Your task to perform on an android device: Open Yahoo.com Image 0: 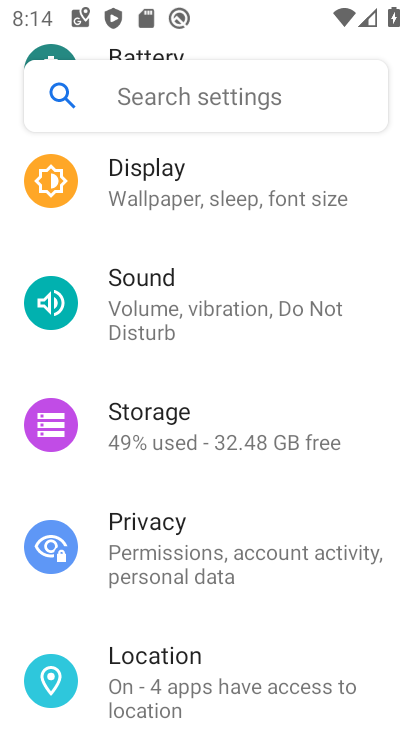
Step 0: press home button
Your task to perform on an android device: Open Yahoo.com Image 1: 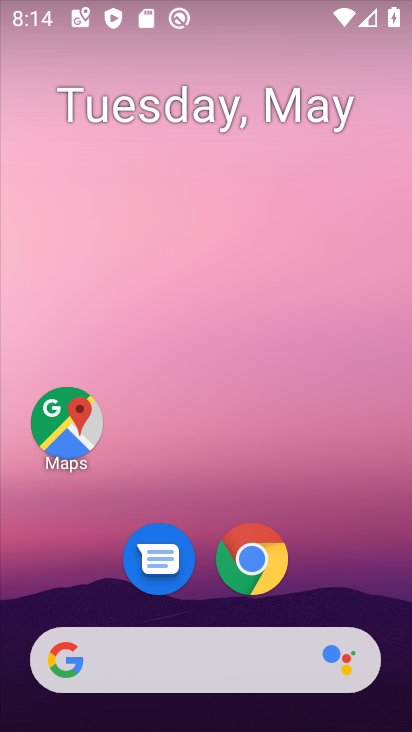
Step 1: drag from (365, 565) to (319, 82)
Your task to perform on an android device: Open Yahoo.com Image 2: 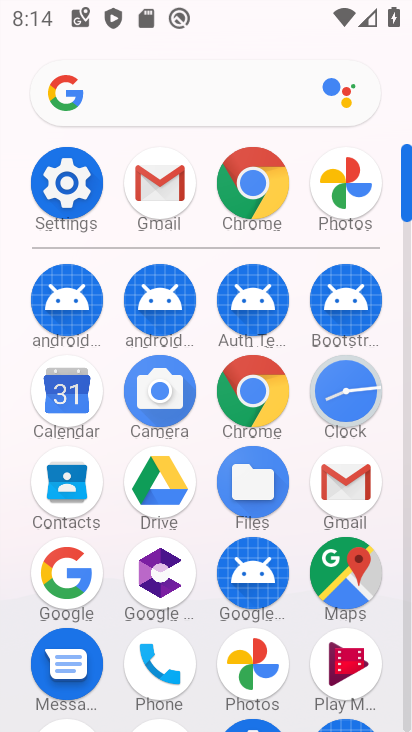
Step 2: click (243, 170)
Your task to perform on an android device: Open Yahoo.com Image 3: 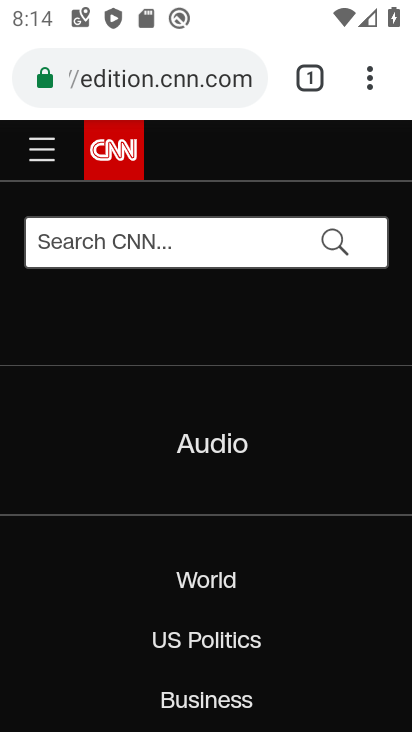
Step 3: click (218, 91)
Your task to perform on an android device: Open Yahoo.com Image 4: 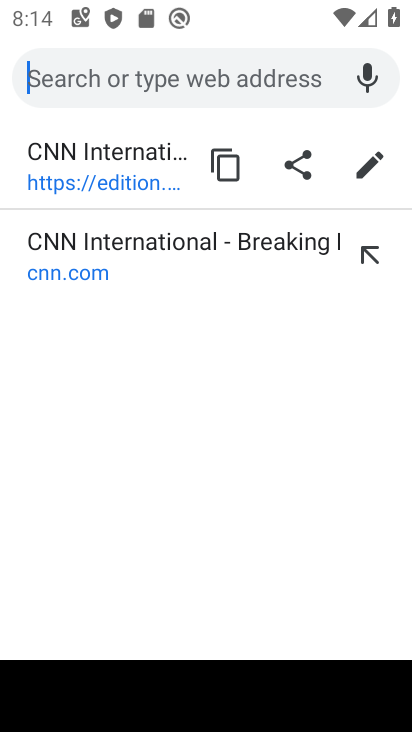
Step 4: type "yahoo"
Your task to perform on an android device: Open Yahoo.com Image 5: 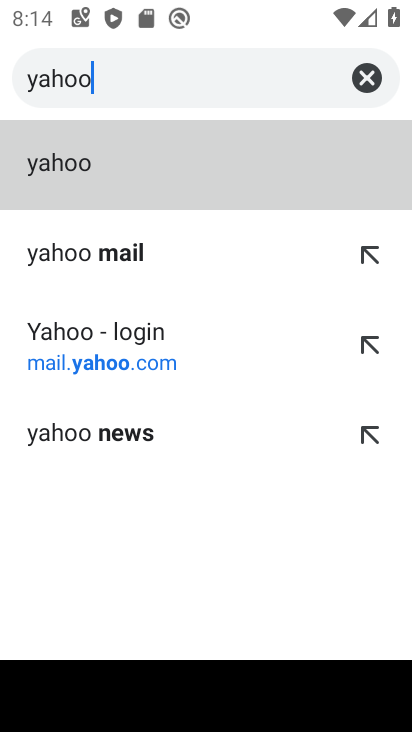
Step 5: click (110, 272)
Your task to perform on an android device: Open Yahoo.com Image 6: 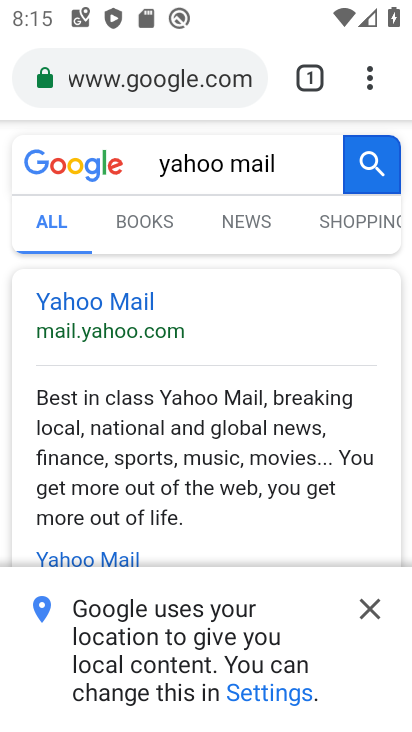
Step 6: click (118, 321)
Your task to perform on an android device: Open Yahoo.com Image 7: 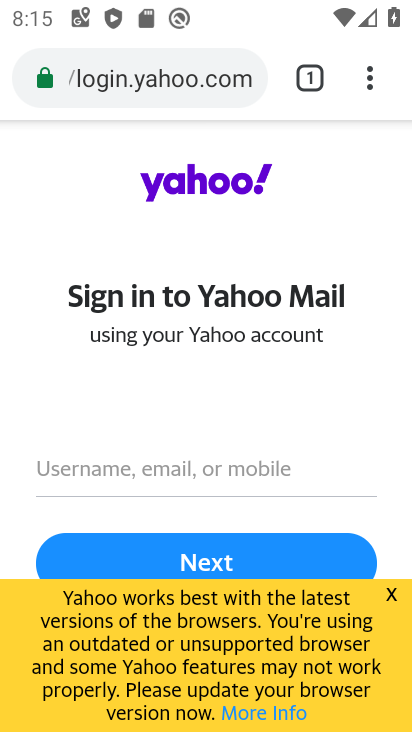
Step 7: task complete